Your task to perform on an android device: Toggle the flashlight Image 0: 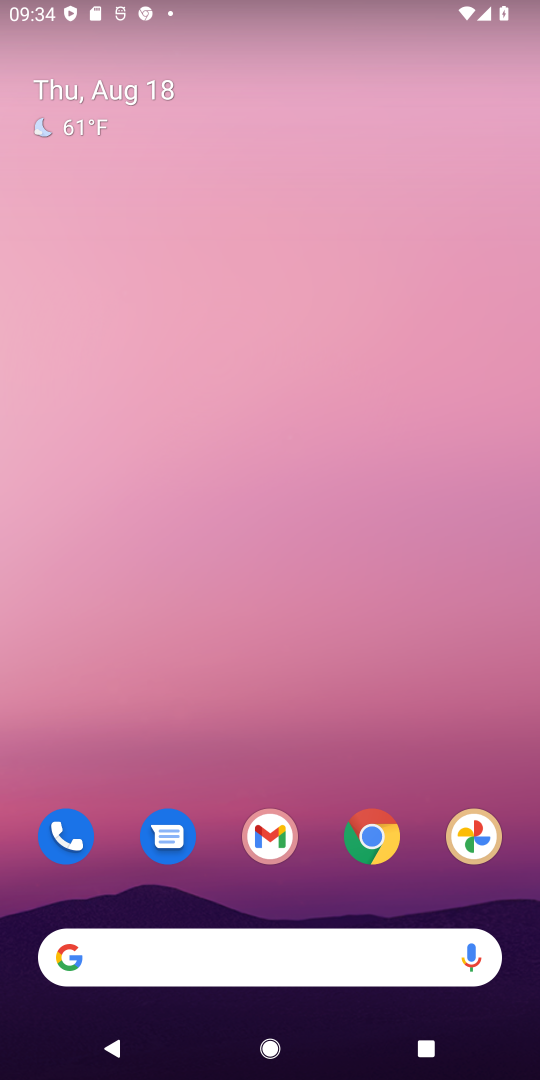
Step 0: drag from (363, 732) to (507, 55)
Your task to perform on an android device: Toggle the flashlight Image 1: 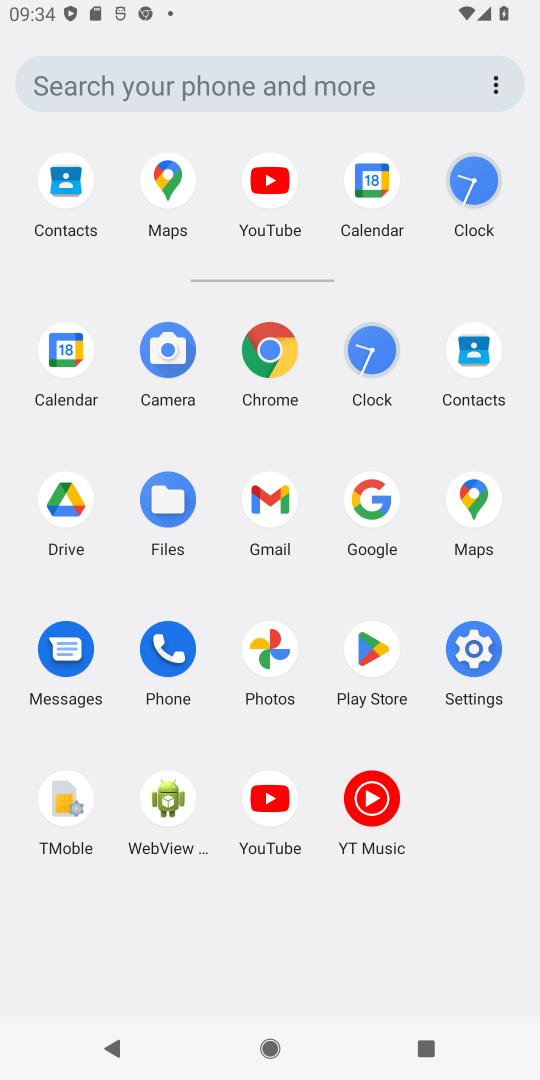
Step 1: click (480, 649)
Your task to perform on an android device: Toggle the flashlight Image 2: 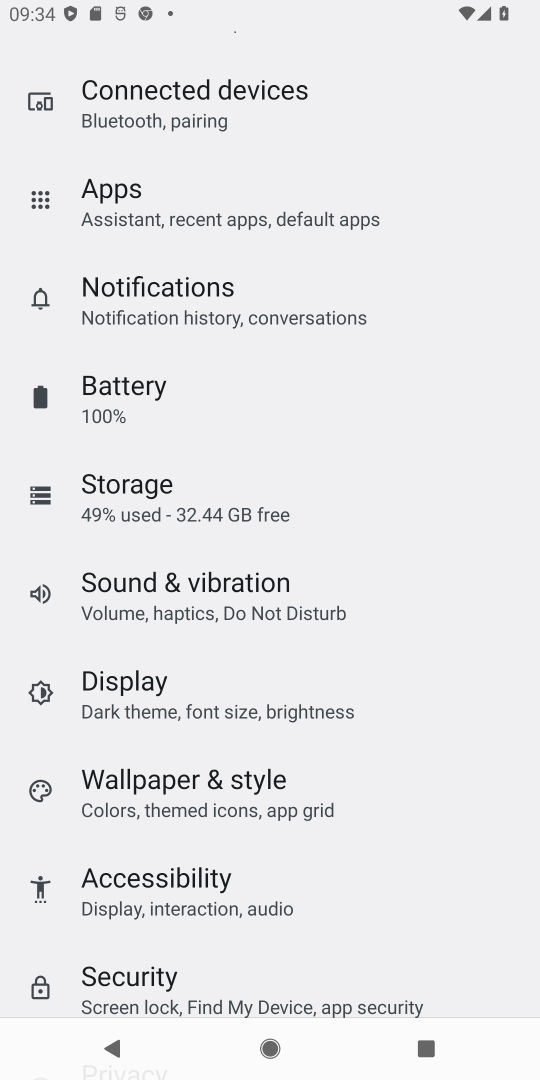
Step 2: drag from (188, 863) to (313, 917)
Your task to perform on an android device: Toggle the flashlight Image 3: 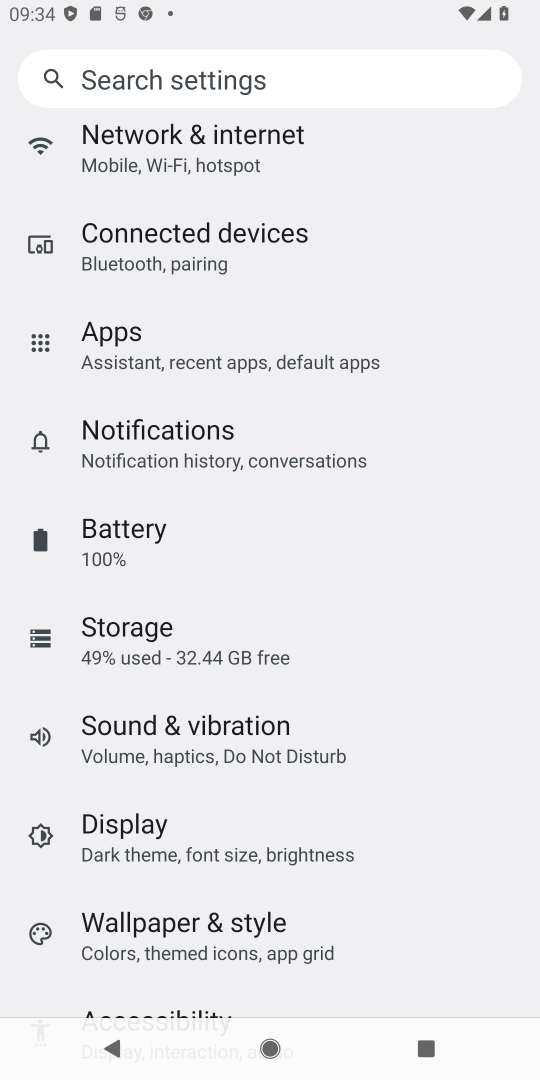
Step 3: drag from (396, 680) to (409, 489)
Your task to perform on an android device: Toggle the flashlight Image 4: 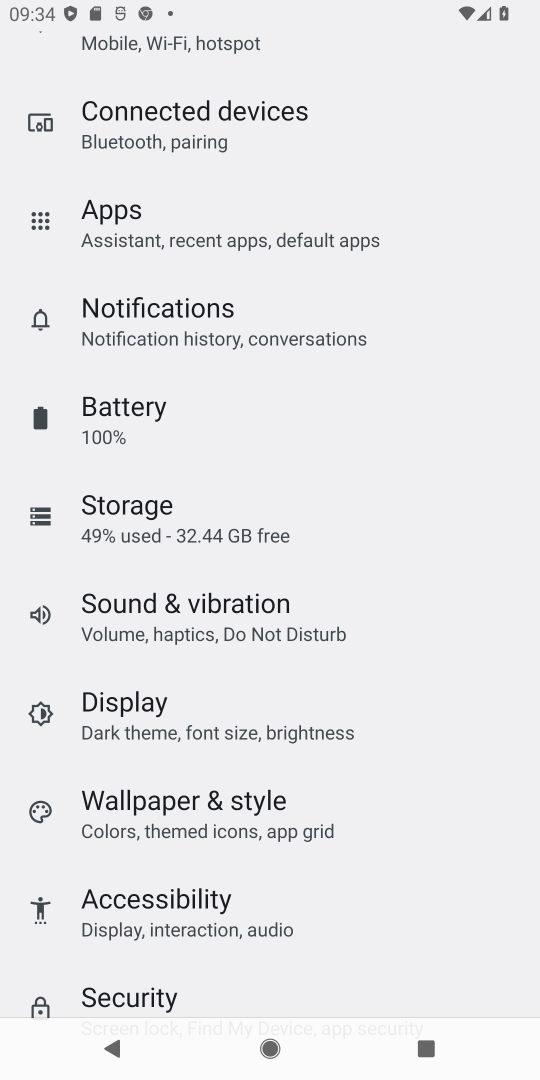
Step 4: click (146, 742)
Your task to perform on an android device: Toggle the flashlight Image 5: 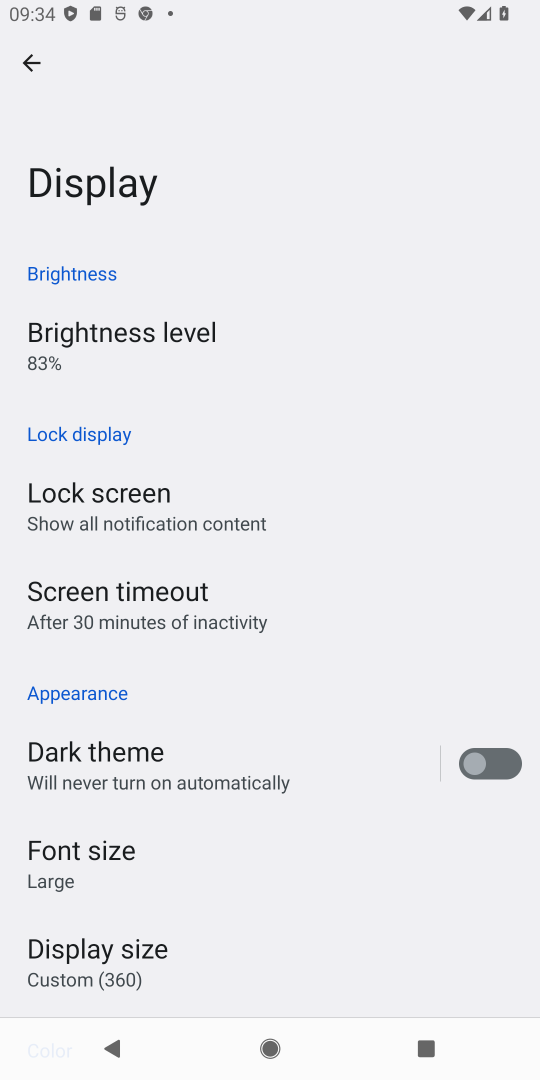
Step 5: click (174, 335)
Your task to perform on an android device: Toggle the flashlight Image 6: 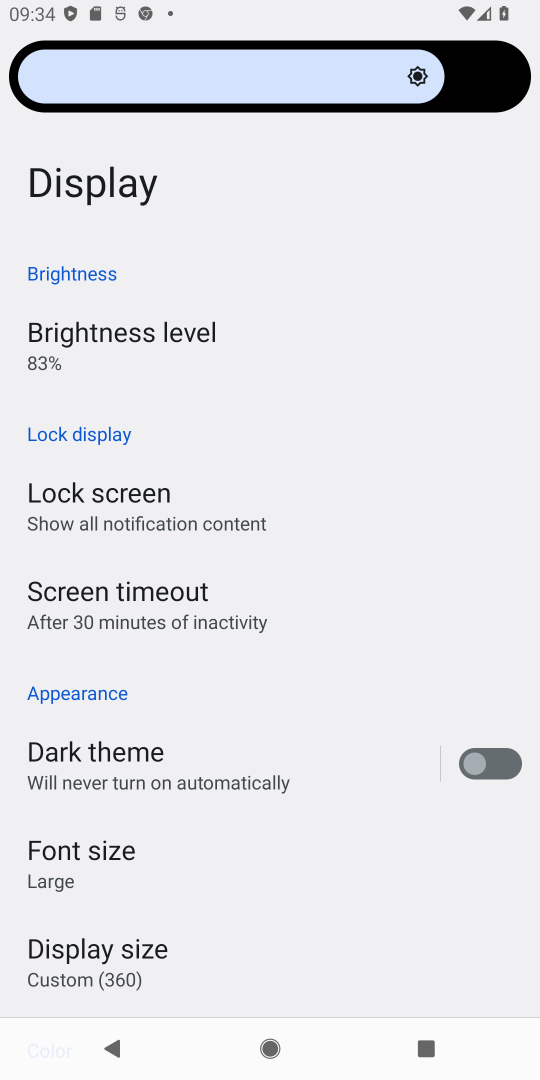
Step 6: task complete